Your task to perform on an android device: Go to Reddit.com Image 0: 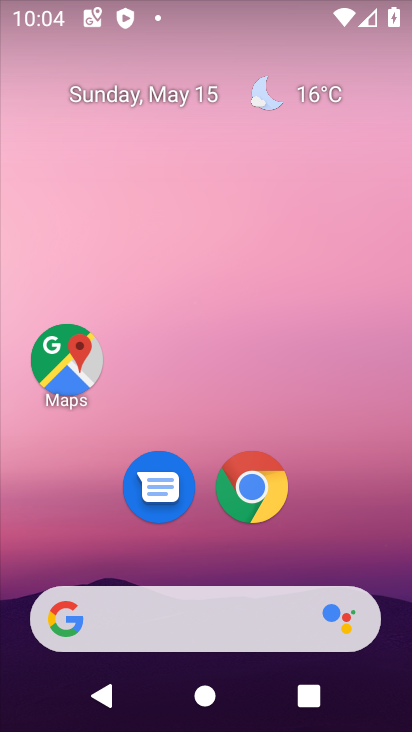
Step 0: click (248, 484)
Your task to perform on an android device: Go to Reddit.com Image 1: 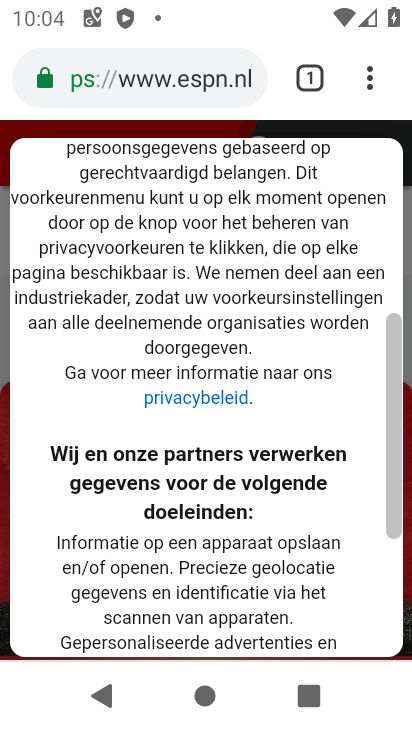
Step 1: click (165, 69)
Your task to perform on an android device: Go to Reddit.com Image 2: 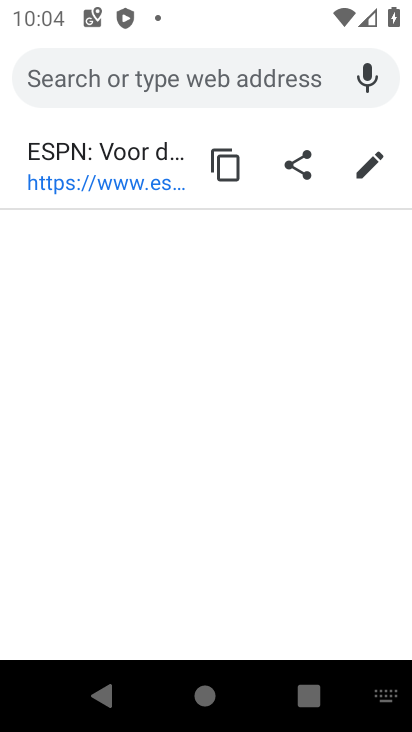
Step 2: type "reddit.com"
Your task to perform on an android device: Go to Reddit.com Image 3: 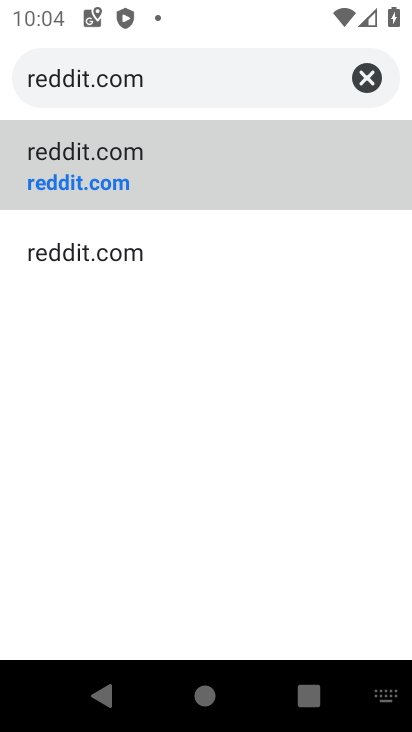
Step 3: click (97, 158)
Your task to perform on an android device: Go to Reddit.com Image 4: 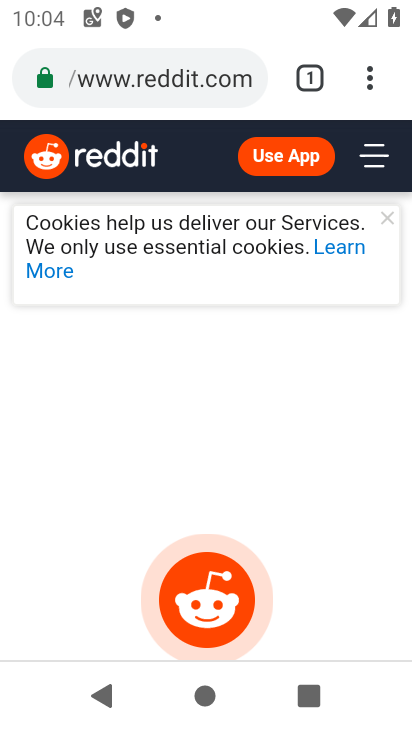
Step 4: task complete